Your task to perform on an android device: toggle improve location accuracy Image 0: 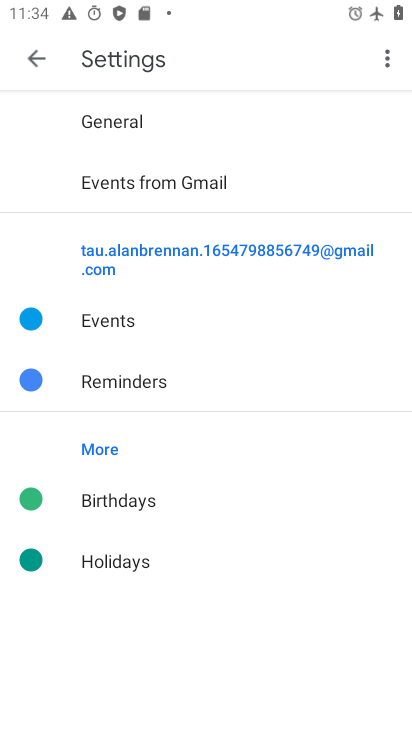
Step 0: task complete